Your task to perform on an android device: Is it going to rain this weekend? Image 0: 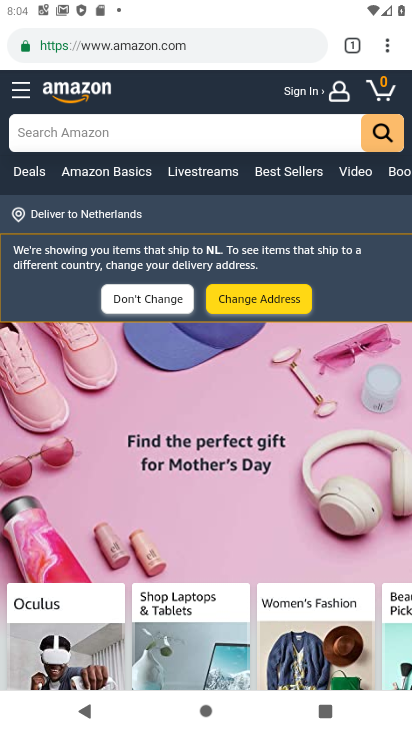
Step 0: press home button
Your task to perform on an android device: Is it going to rain this weekend? Image 1: 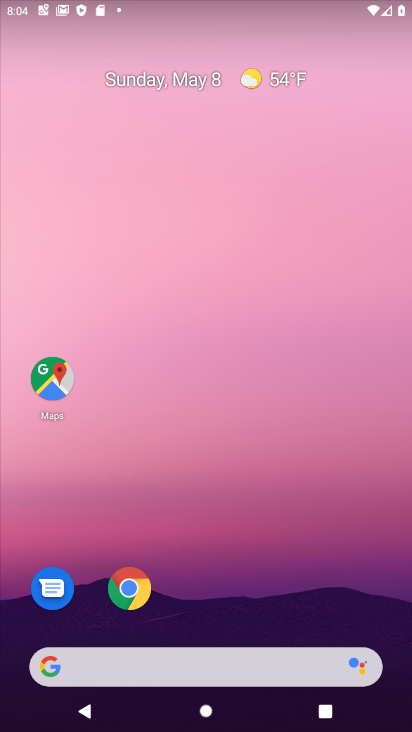
Step 1: click (293, 77)
Your task to perform on an android device: Is it going to rain this weekend? Image 2: 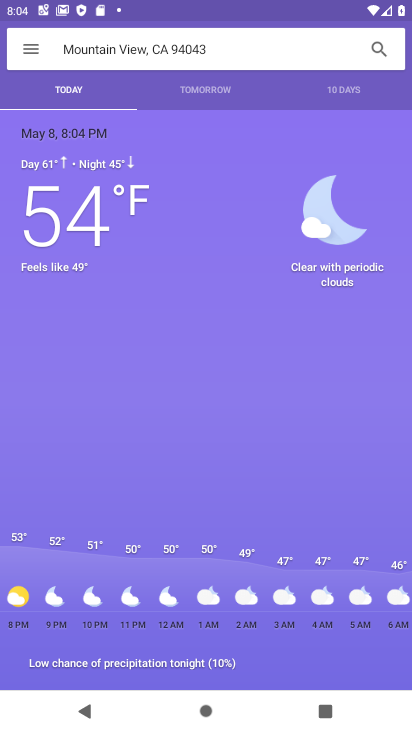
Step 2: click (339, 88)
Your task to perform on an android device: Is it going to rain this weekend? Image 3: 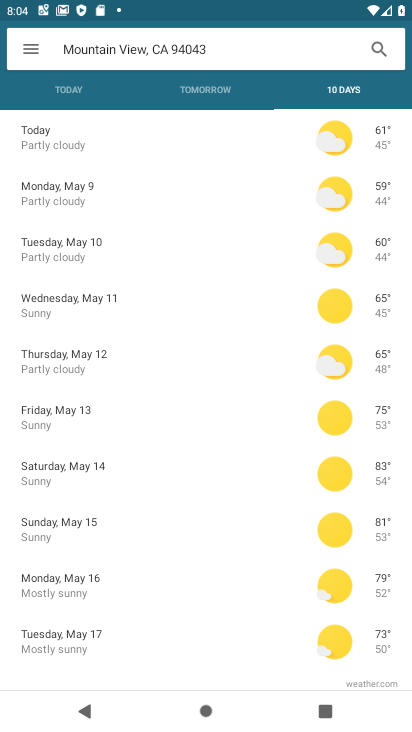
Step 3: task complete